Your task to perform on an android device: Open notification settings Image 0: 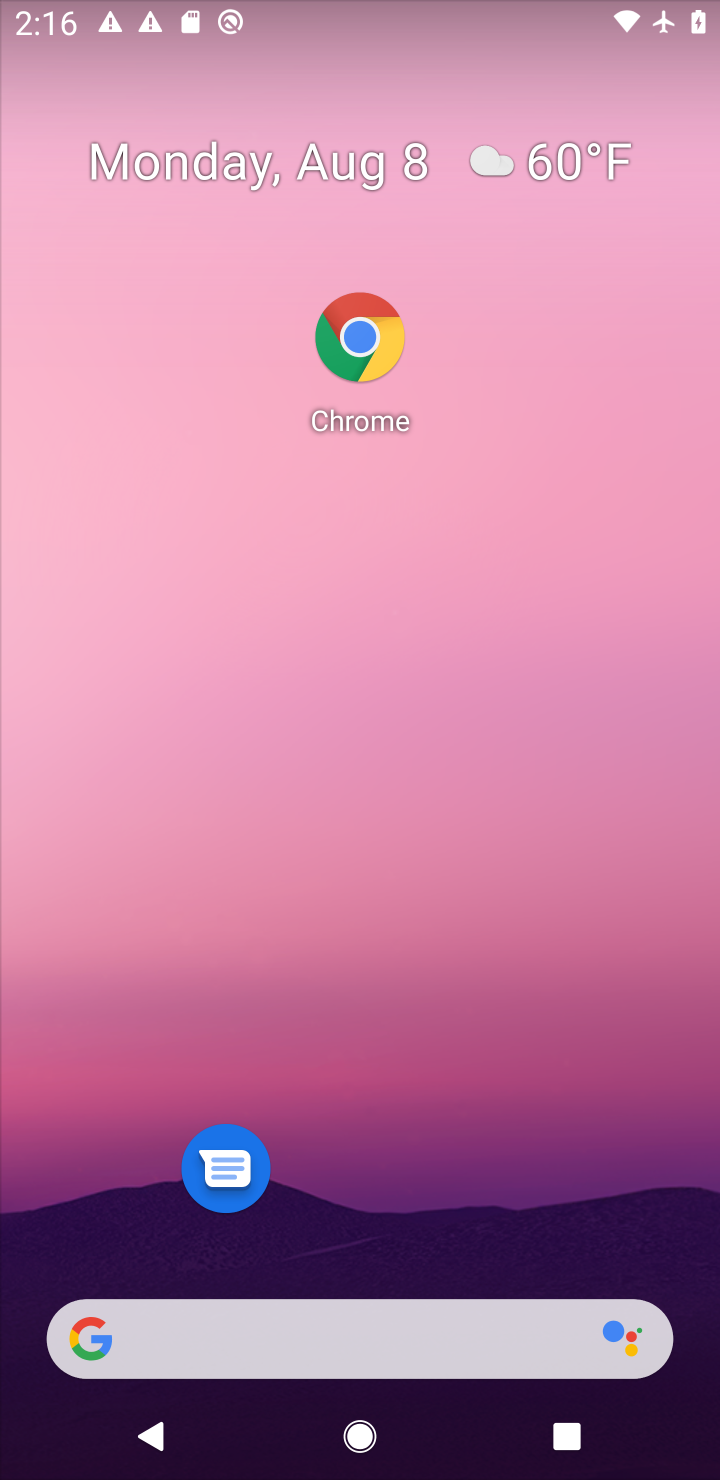
Step 0: drag from (449, 1245) to (519, 118)
Your task to perform on an android device: Open notification settings Image 1: 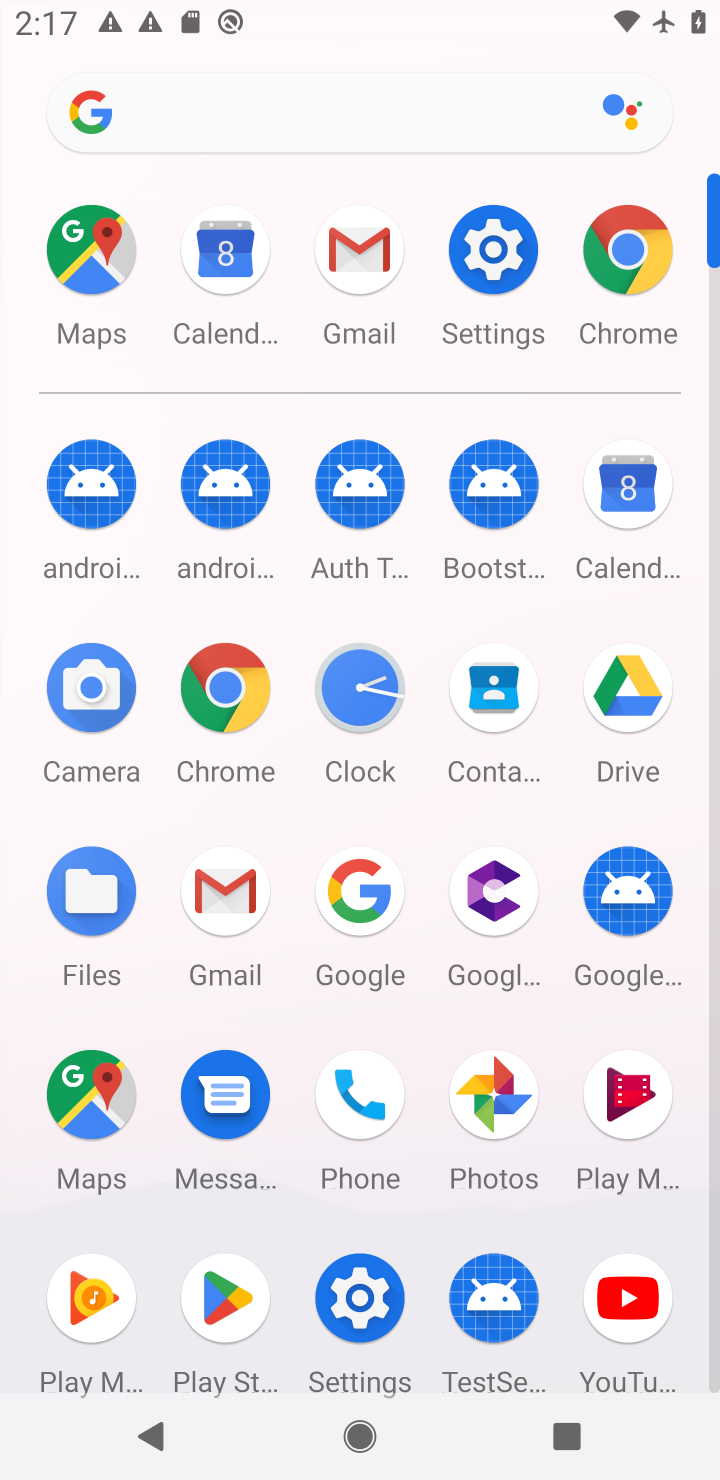
Step 1: click (376, 1283)
Your task to perform on an android device: Open notification settings Image 2: 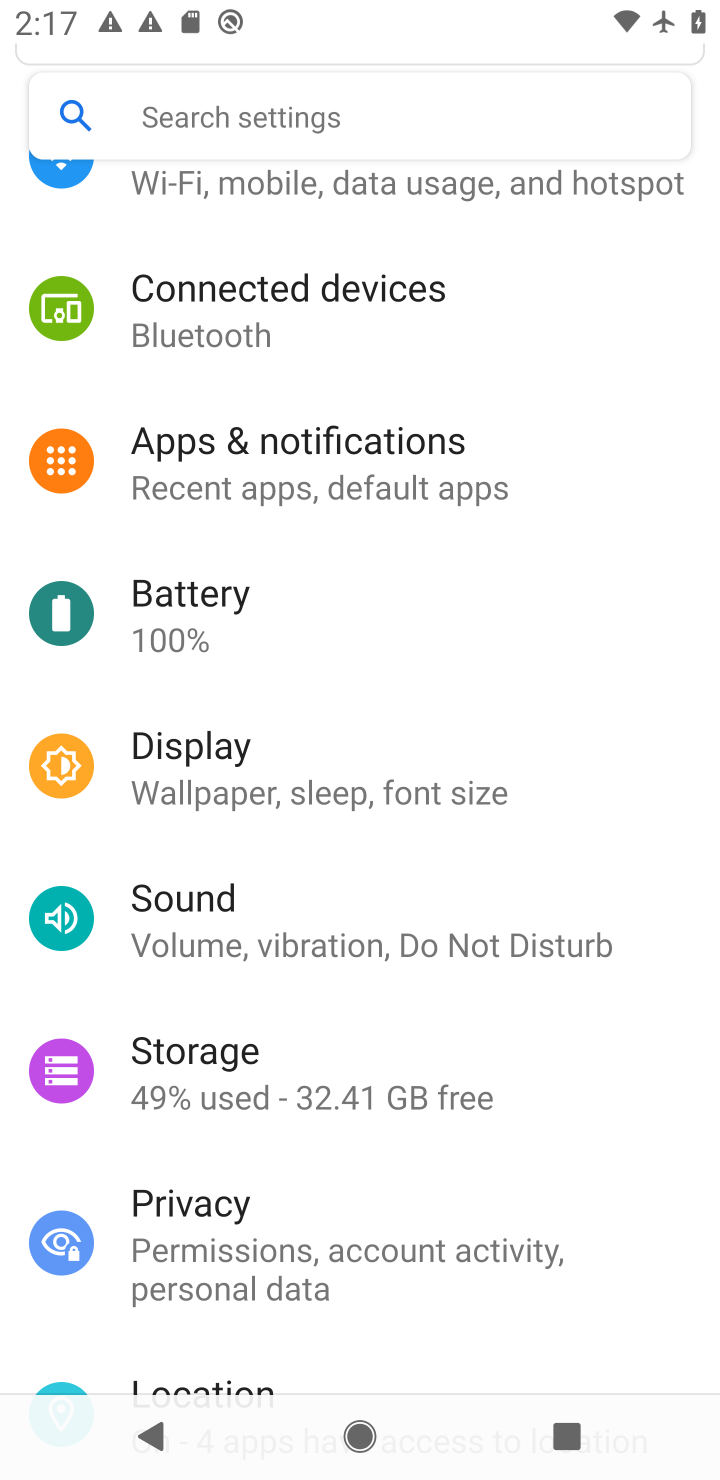
Step 2: click (475, 510)
Your task to perform on an android device: Open notification settings Image 3: 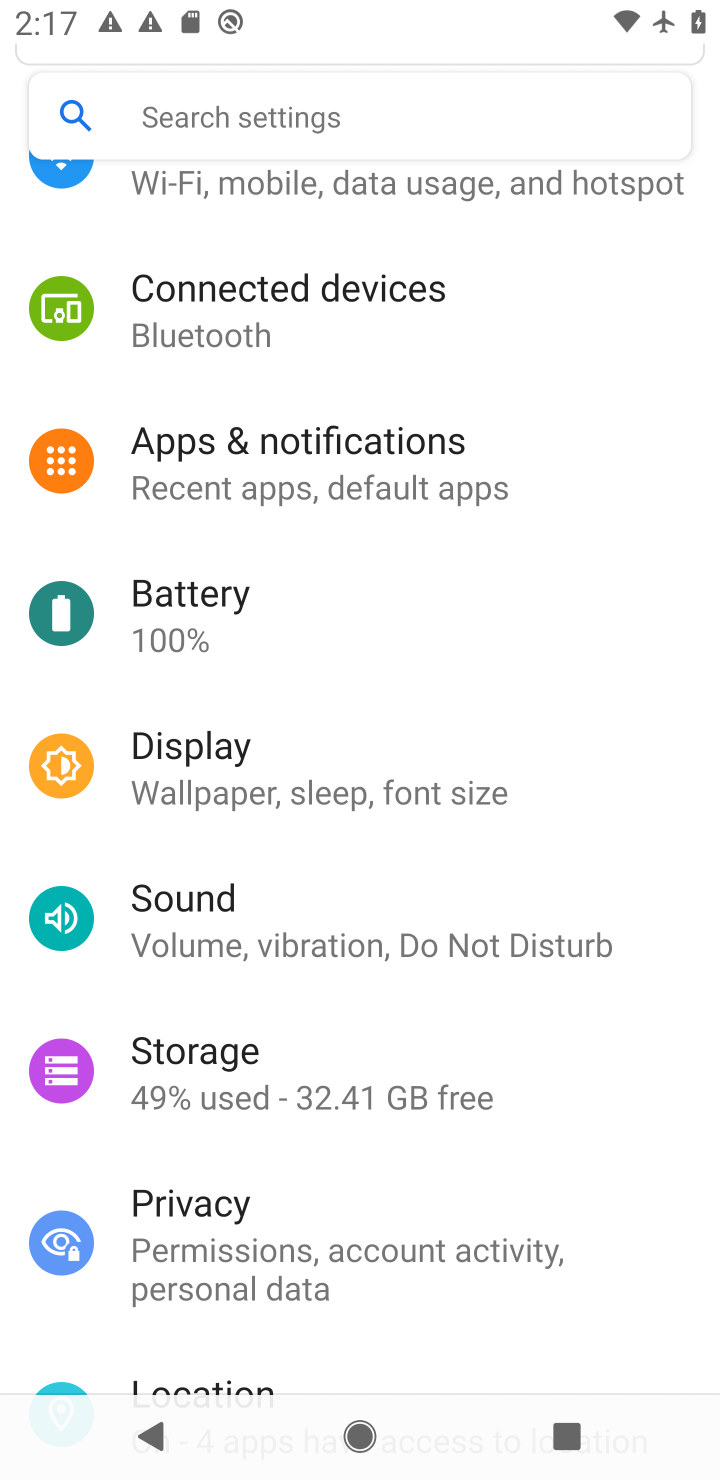
Step 3: click (475, 510)
Your task to perform on an android device: Open notification settings Image 4: 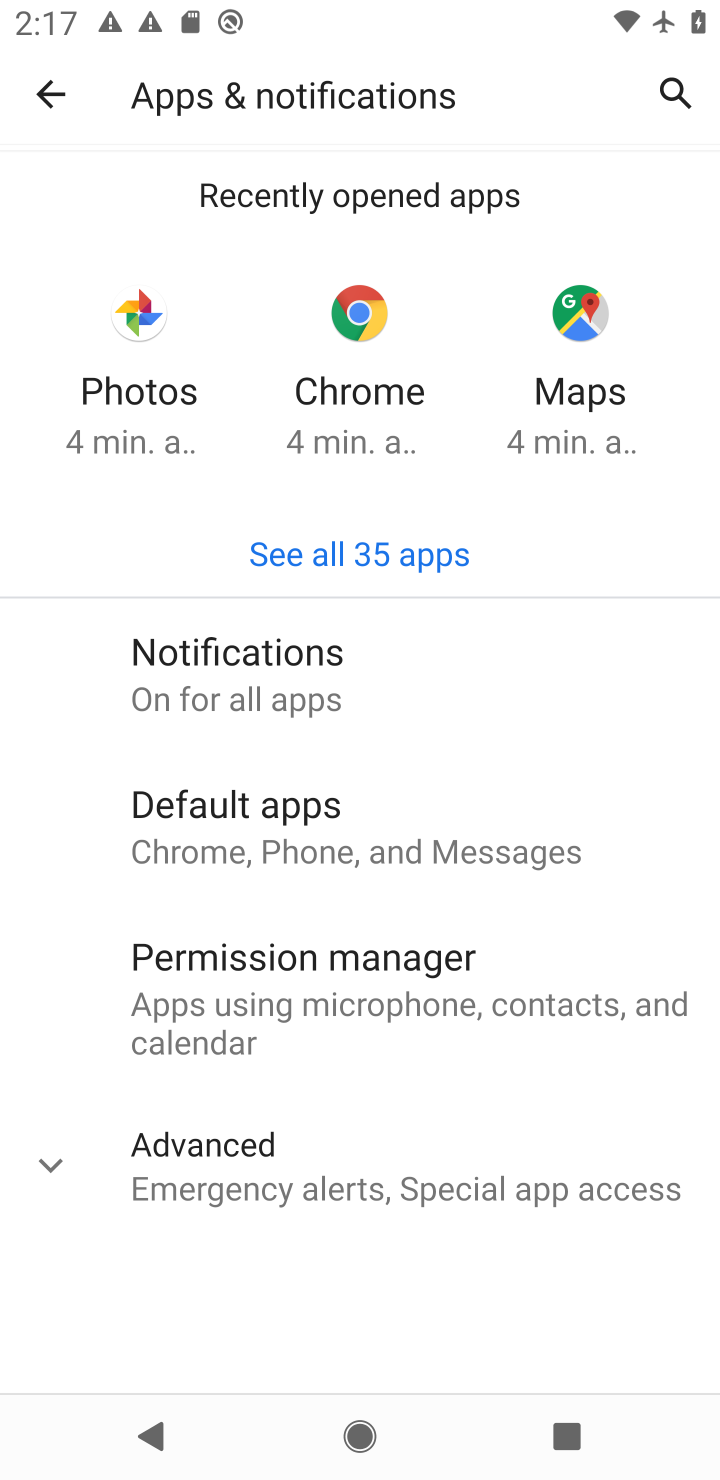
Step 4: task complete